Your task to perform on an android device: check battery use Image 0: 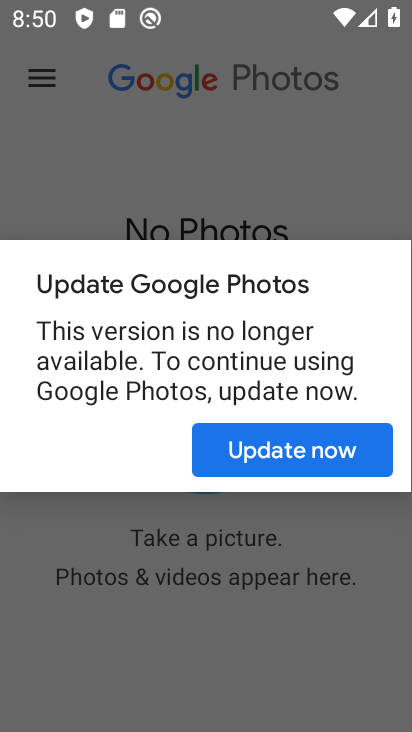
Step 0: press home button
Your task to perform on an android device: check battery use Image 1: 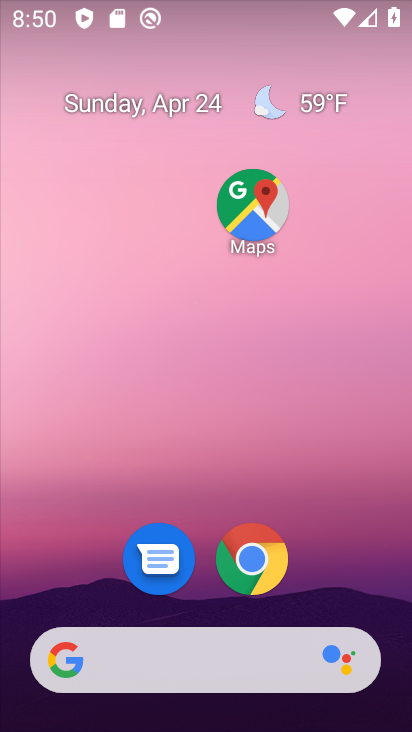
Step 1: drag from (84, 625) to (248, 260)
Your task to perform on an android device: check battery use Image 2: 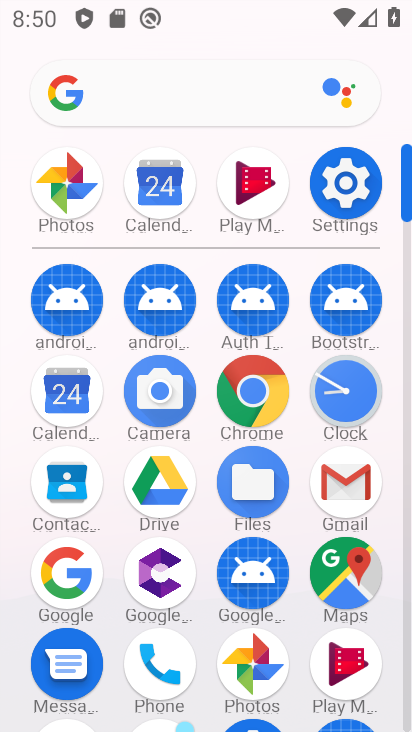
Step 2: click (352, 190)
Your task to perform on an android device: check battery use Image 3: 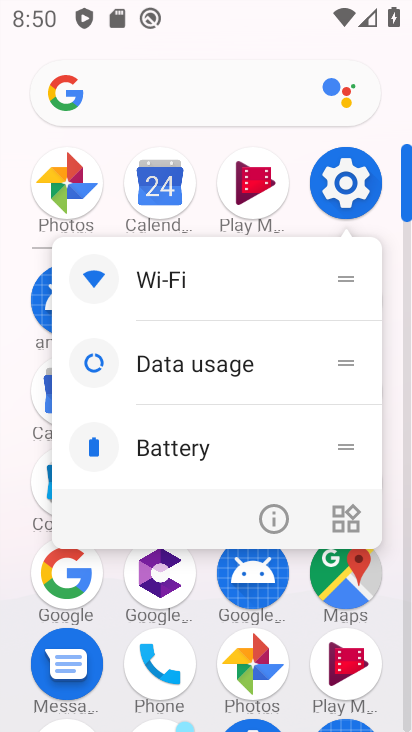
Step 3: click (269, 512)
Your task to perform on an android device: check battery use Image 4: 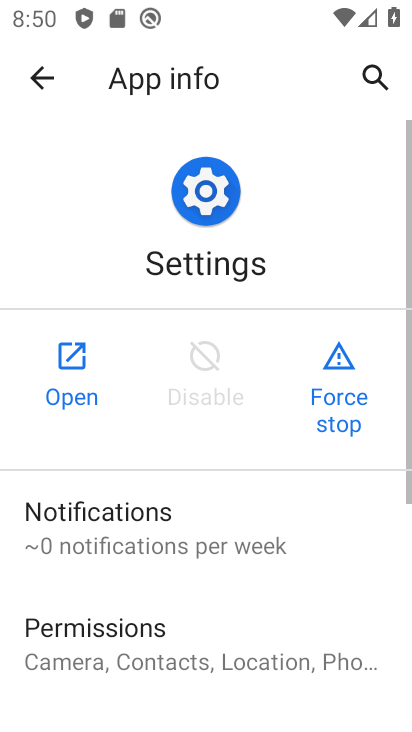
Step 4: click (66, 370)
Your task to perform on an android device: check battery use Image 5: 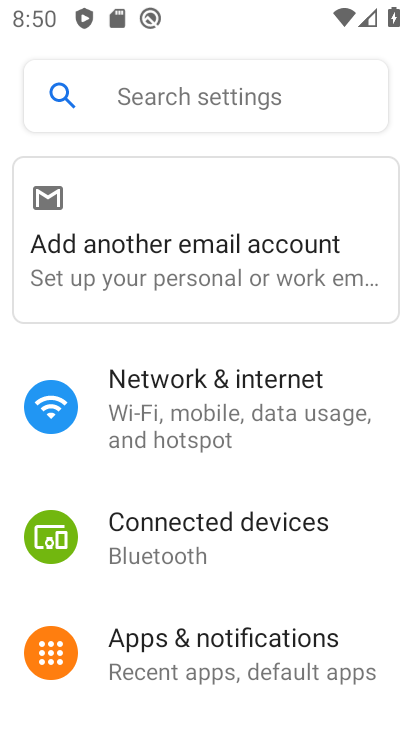
Step 5: drag from (175, 639) to (266, 337)
Your task to perform on an android device: check battery use Image 6: 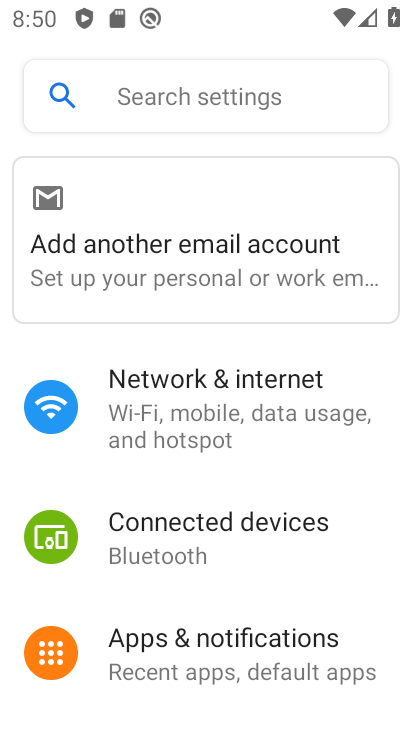
Step 6: drag from (4, 713) to (216, 287)
Your task to perform on an android device: check battery use Image 7: 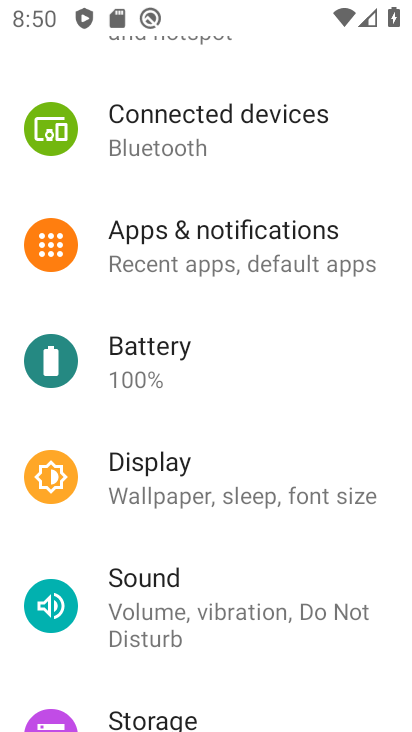
Step 7: click (179, 367)
Your task to perform on an android device: check battery use Image 8: 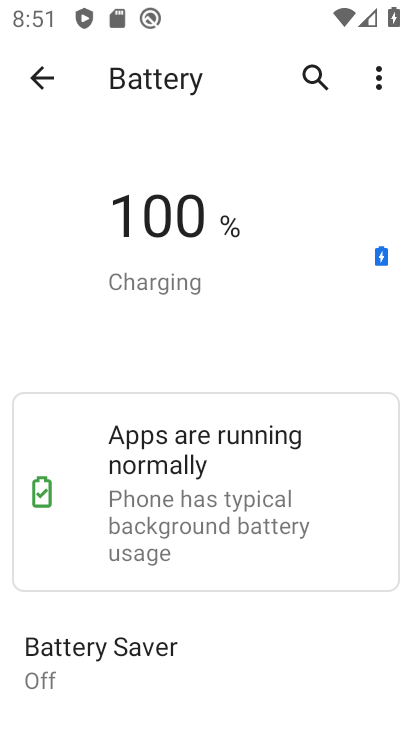
Step 8: task complete